Your task to perform on an android device: Open eBay Image 0: 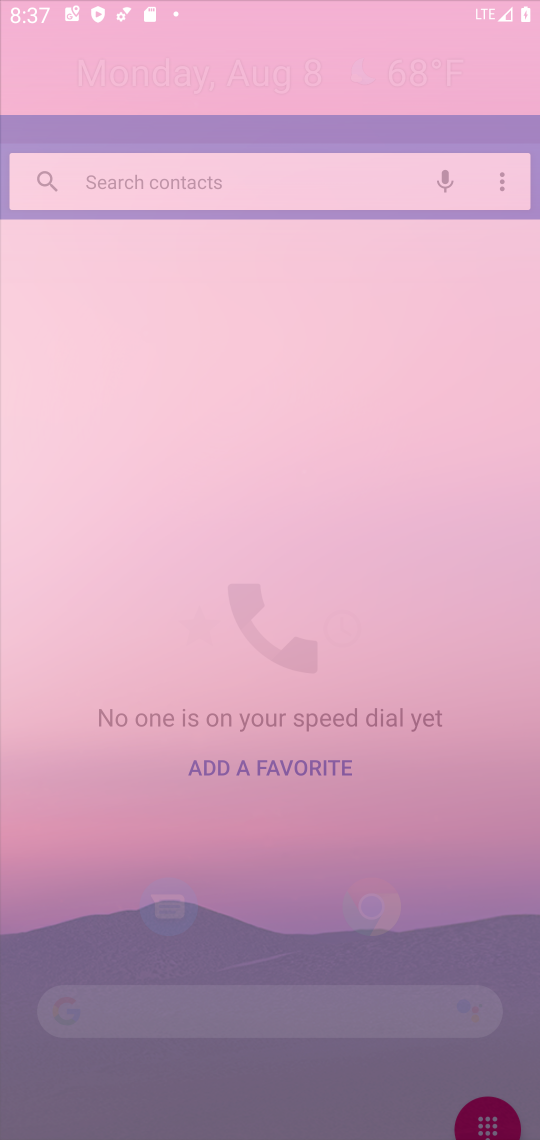
Step 0: drag from (503, 973) to (317, 300)
Your task to perform on an android device: Open eBay Image 1: 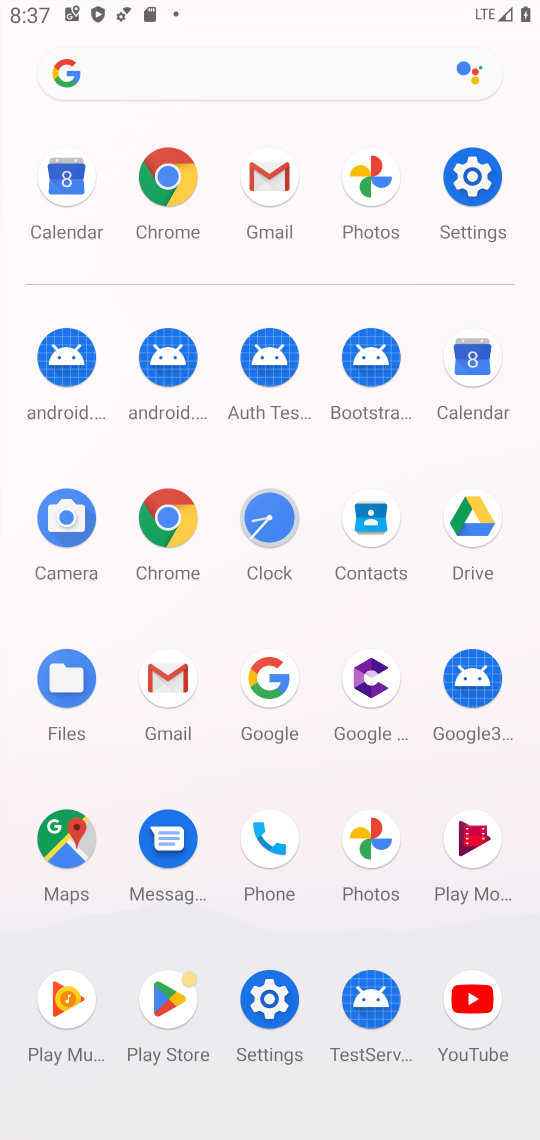
Step 1: click (272, 696)
Your task to perform on an android device: Open eBay Image 2: 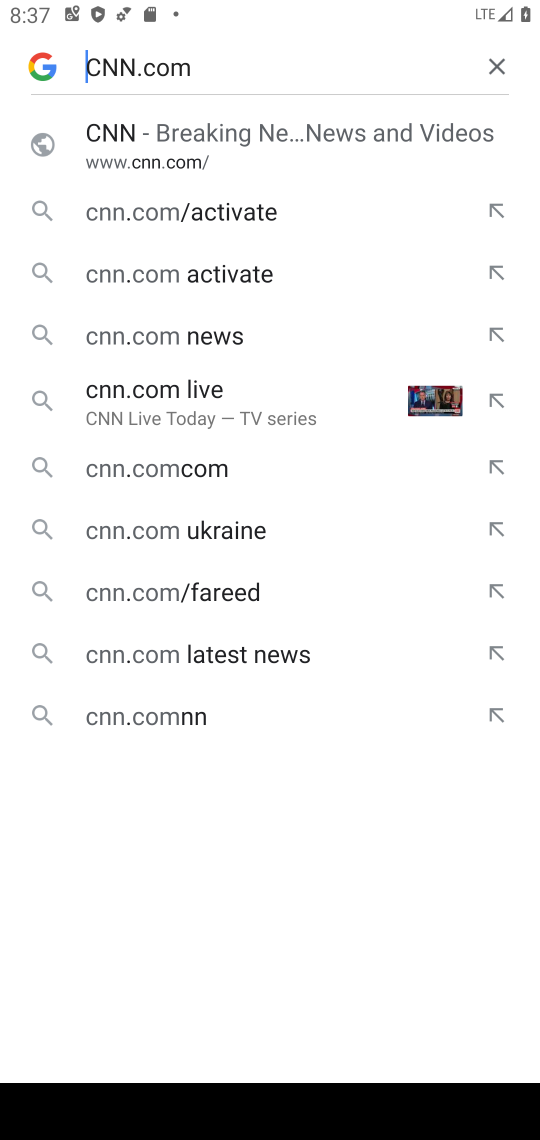
Step 2: click (498, 70)
Your task to perform on an android device: Open eBay Image 3: 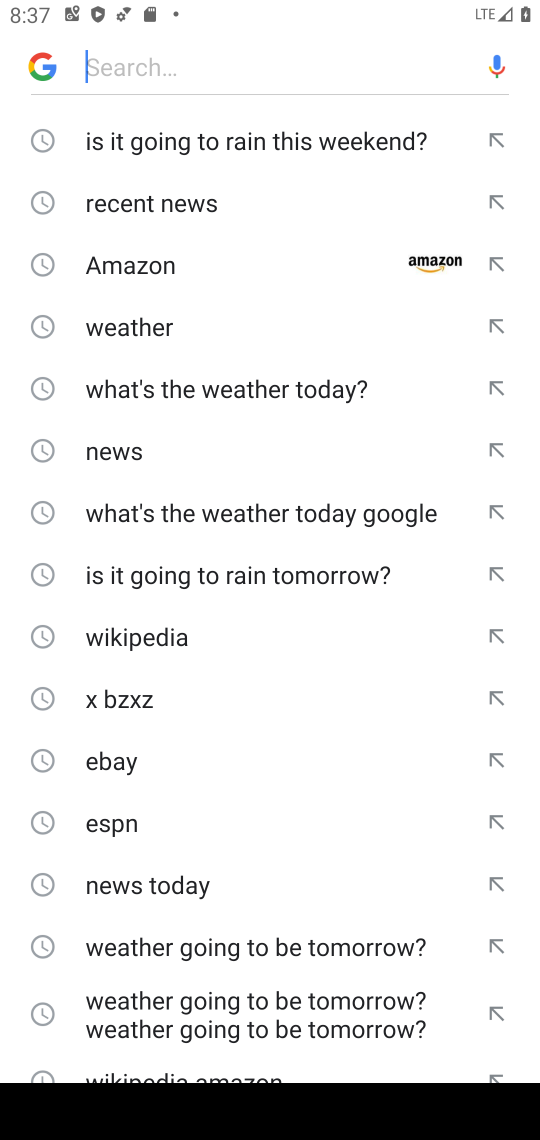
Step 3: drag from (212, 1022) to (267, 600)
Your task to perform on an android device: Open eBay Image 4: 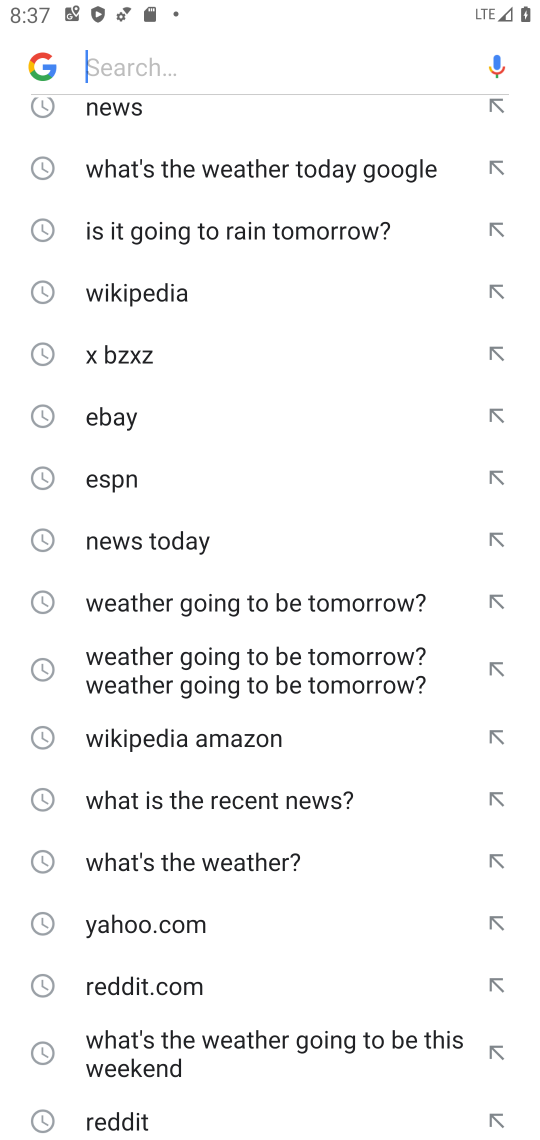
Step 4: click (115, 422)
Your task to perform on an android device: Open eBay Image 5: 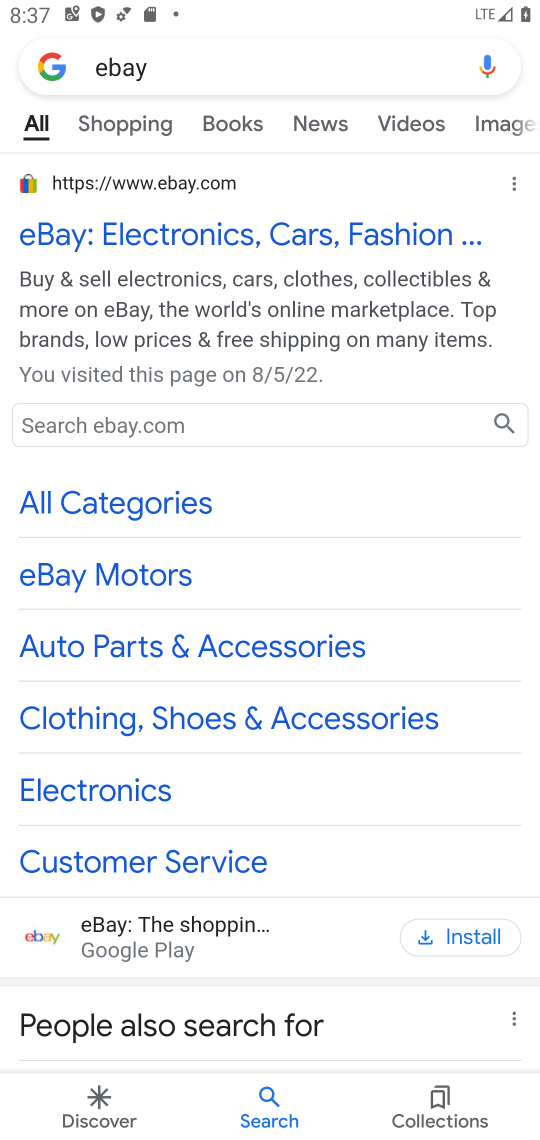
Step 5: task complete